Your task to perform on an android device: View the shopping cart on bestbuy. Add "duracell triple a" to the cart on bestbuy Image 0: 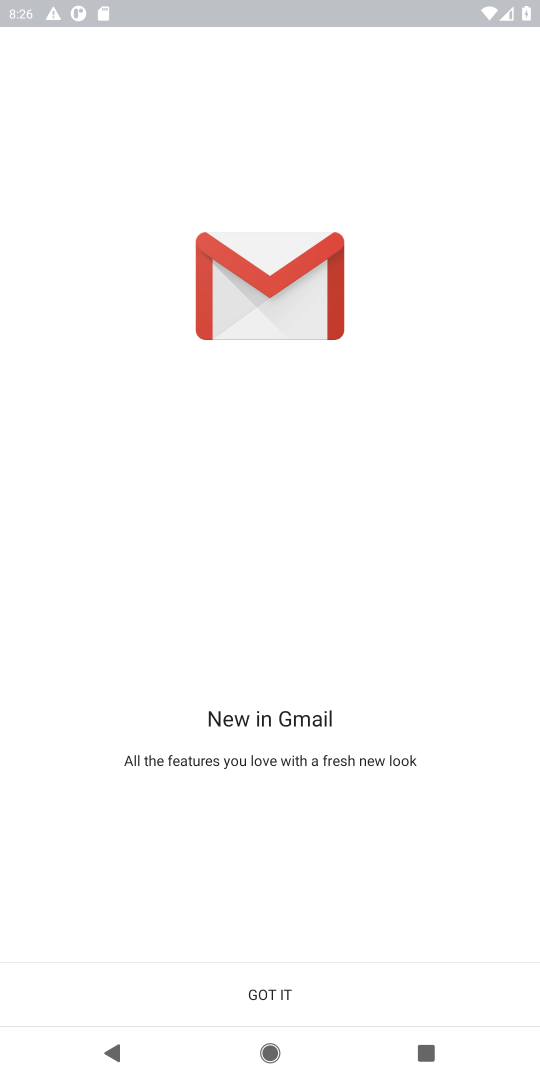
Step 0: press home button
Your task to perform on an android device: View the shopping cart on bestbuy. Add "duracell triple a" to the cart on bestbuy Image 1: 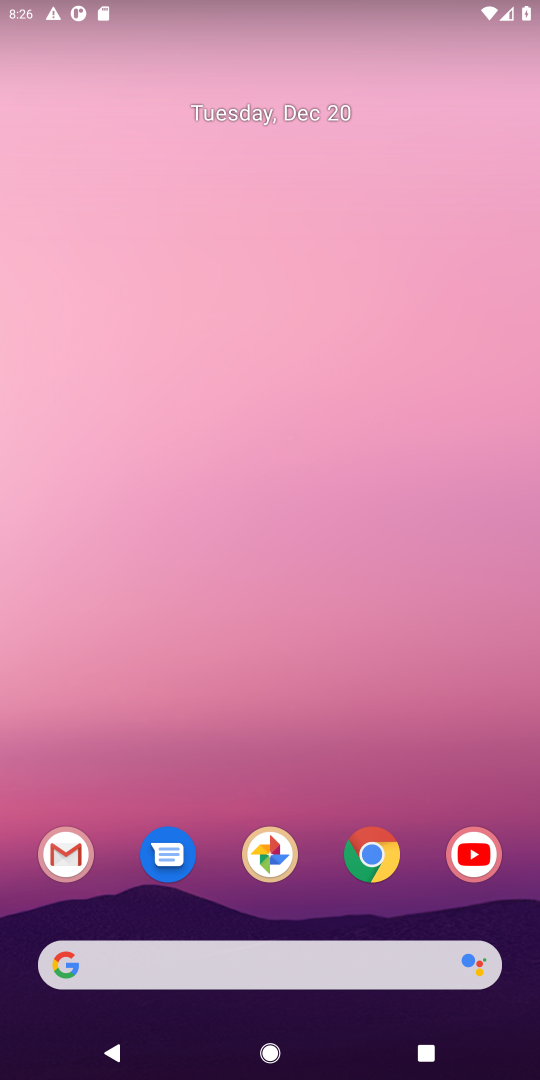
Step 1: click (377, 860)
Your task to perform on an android device: View the shopping cart on bestbuy. Add "duracell triple a" to the cart on bestbuy Image 2: 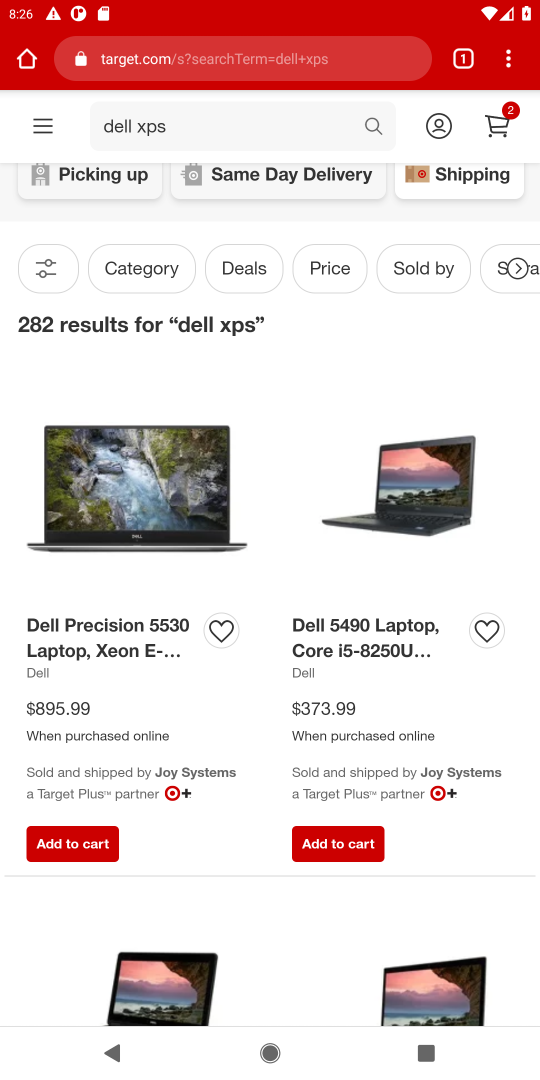
Step 2: click (179, 57)
Your task to perform on an android device: View the shopping cart on bestbuy. Add "duracell triple a" to the cart on bestbuy Image 3: 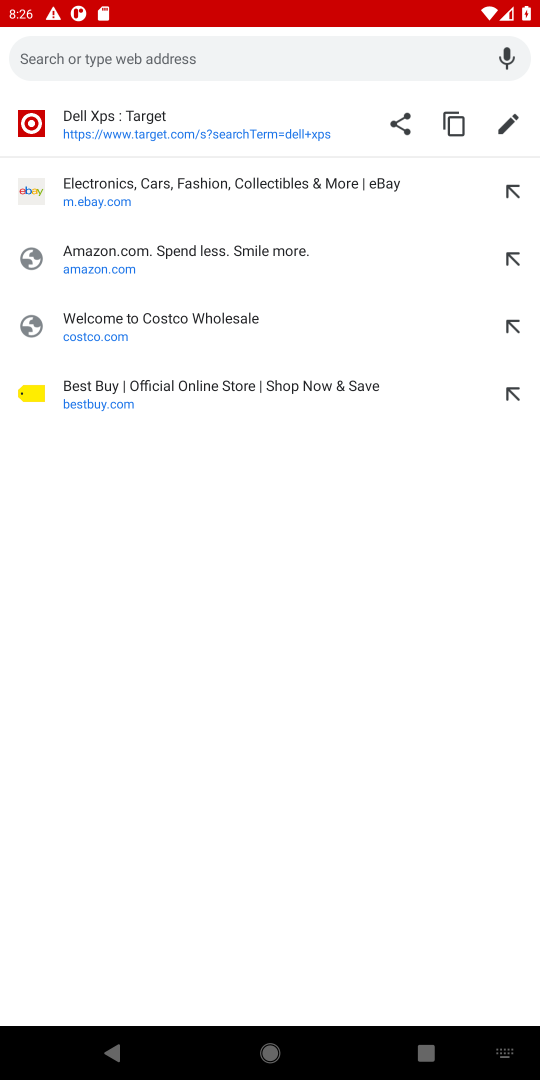
Step 3: click (80, 383)
Your task to perform on an android device: View the shopping cart on bestbuy. Add "duracell triple a" to the cart on bestbuy Image 4: 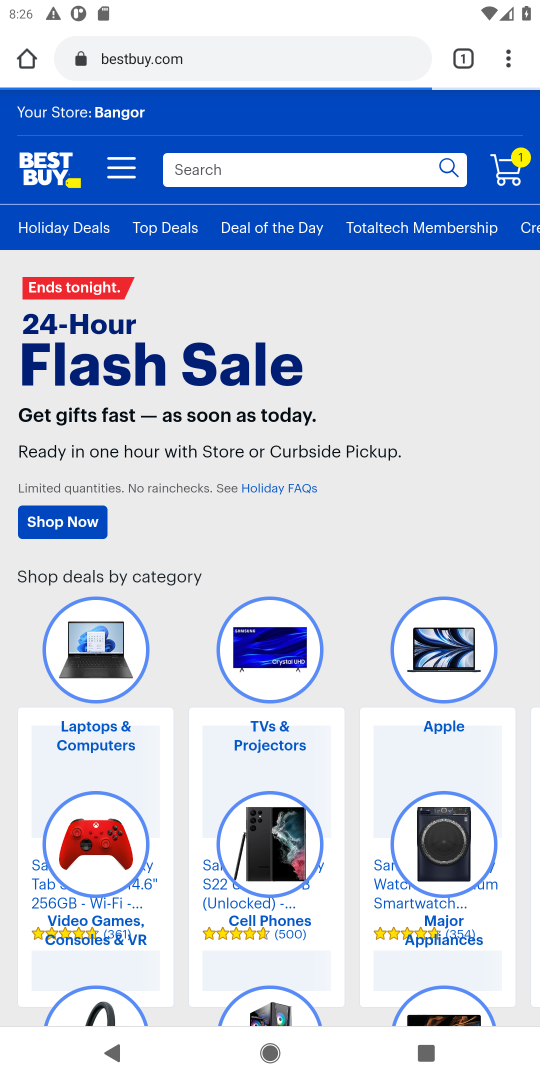
Step 4: click (496, 124)
Your task to perform on an android device: View the shopping cart on bestbuy. Add "duracell triple a" to the cart on bestbuy Image 5: 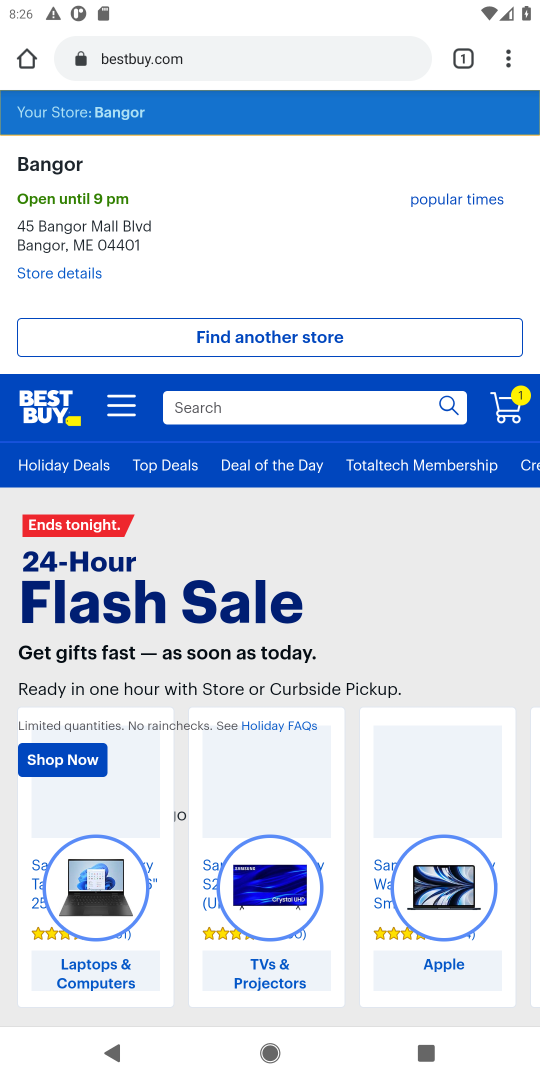
Step 5: click (497, 168)
Your task to perform on an android device: View the shopping cart on bestbuy. Add "duracell triple a" to the cart on bestbuy Image 6: 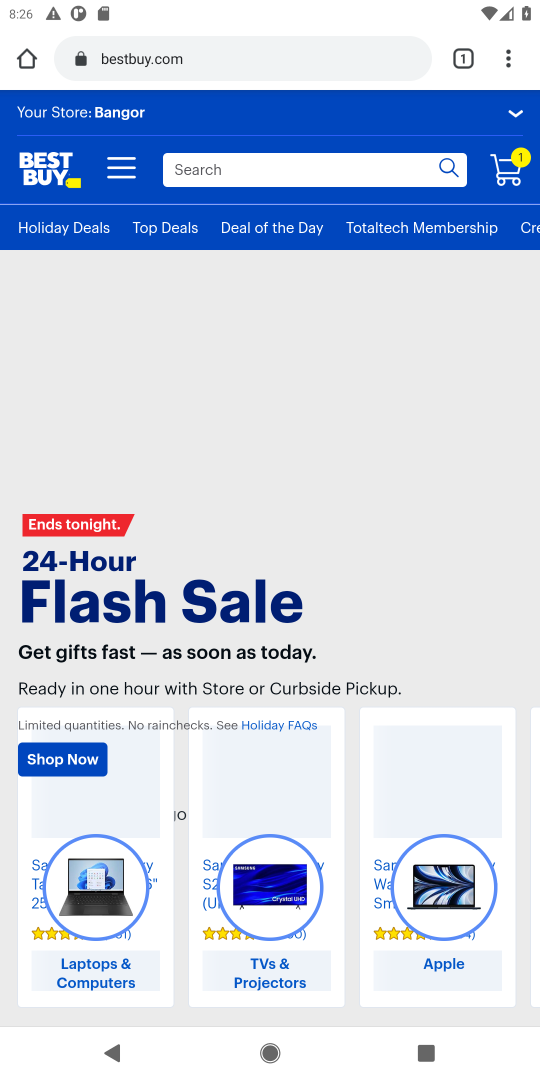
Step 6: click (506, 171)
Your task to perform on an android device: View the shopping cart on bestbuy. Add "duracell triple a" to the cart on bestbuy Image 7: 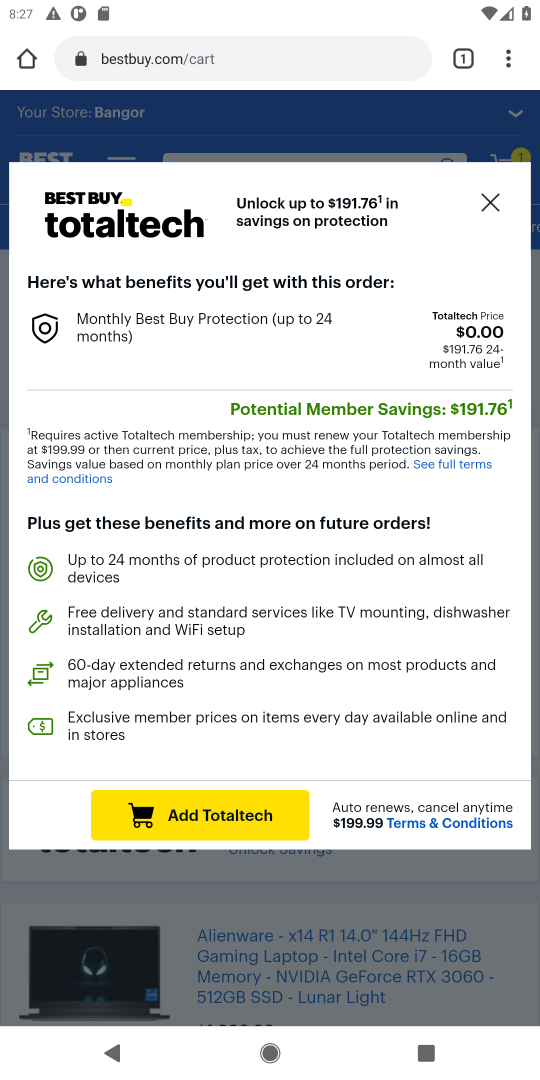
Step 7: click (496, 202)
Your task to perform on an android device: View the shopping cart on bestbuy. Add "duracell triple a" to the cart on bestbuy Image 8: 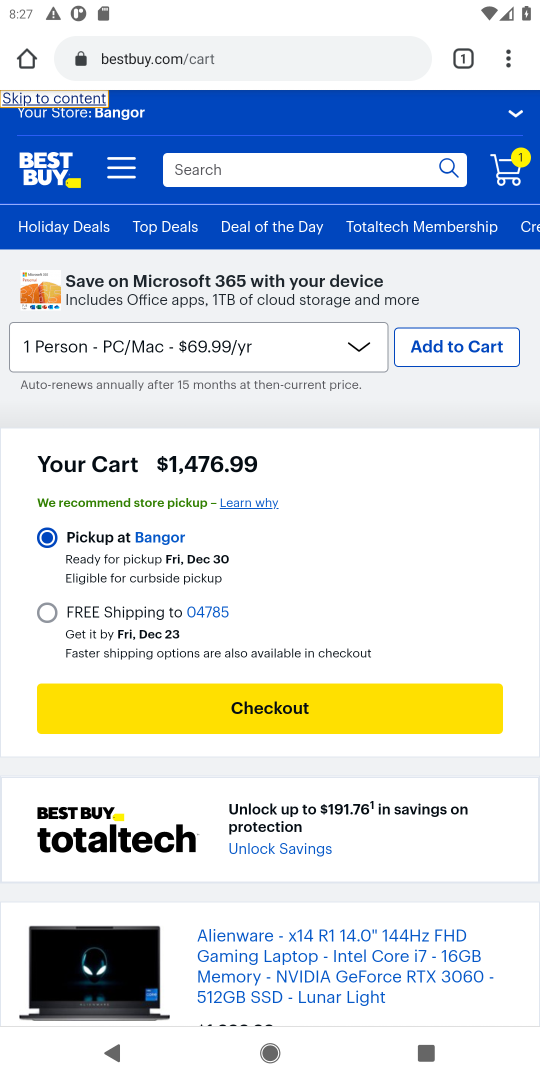
Step 8: click (181, 178)
Your task to perform on an android device: View the shopping cart on bestbuy. Add "duracell triple a" to the cart on bestbuy Image 9: 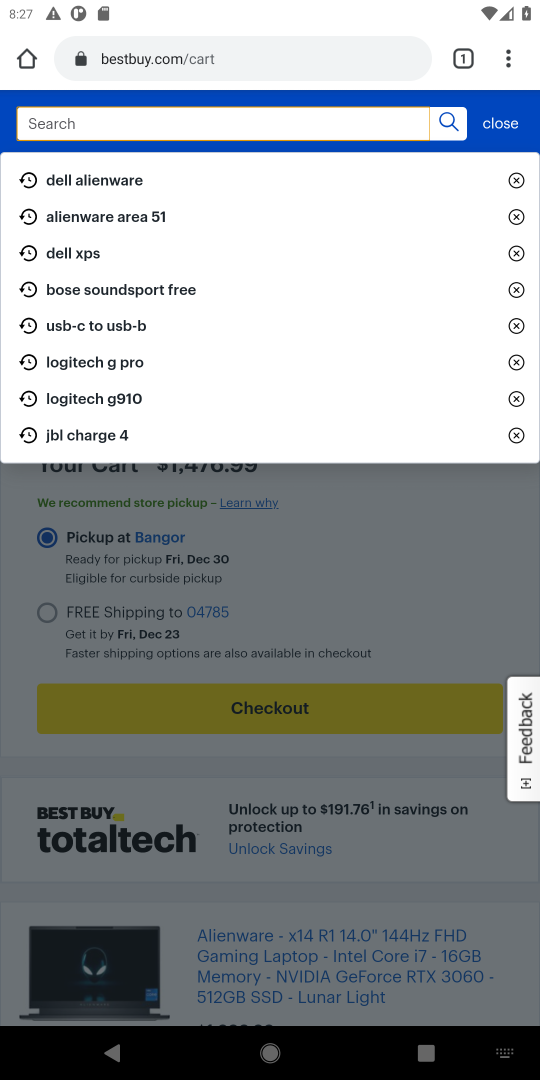
Step 9: type "duracell triple a"
Your task to perform on an android device: View the shopping cart on bestbuy. Add "duracell triple a" to the cart on bestbuy Image 10: 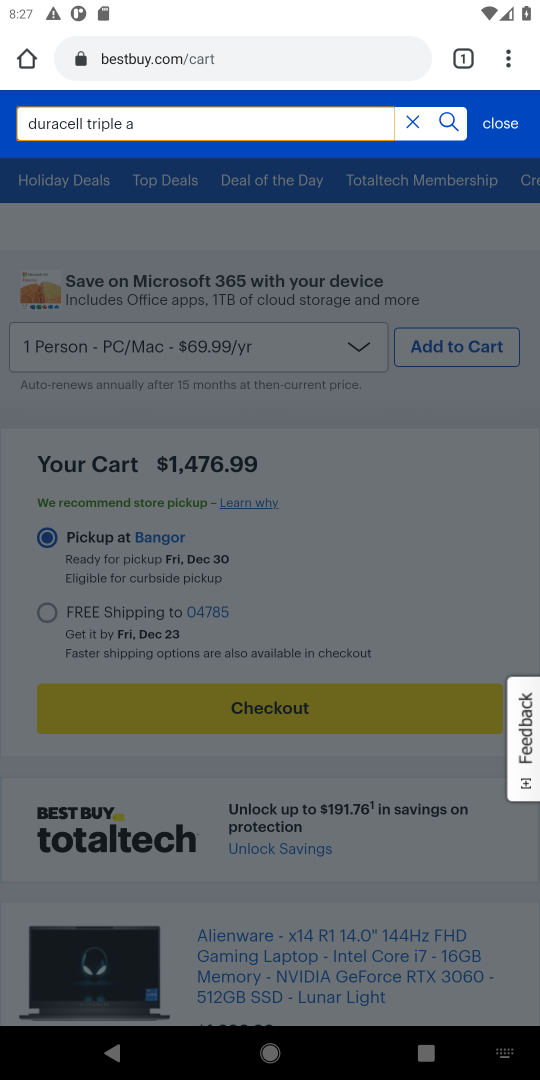
Step 10: click (442, 121)
Your task to perform on an android device: View the shopping cart on bestbuy. Add "duracell triple a" to the cart on bestbuy Image 11: 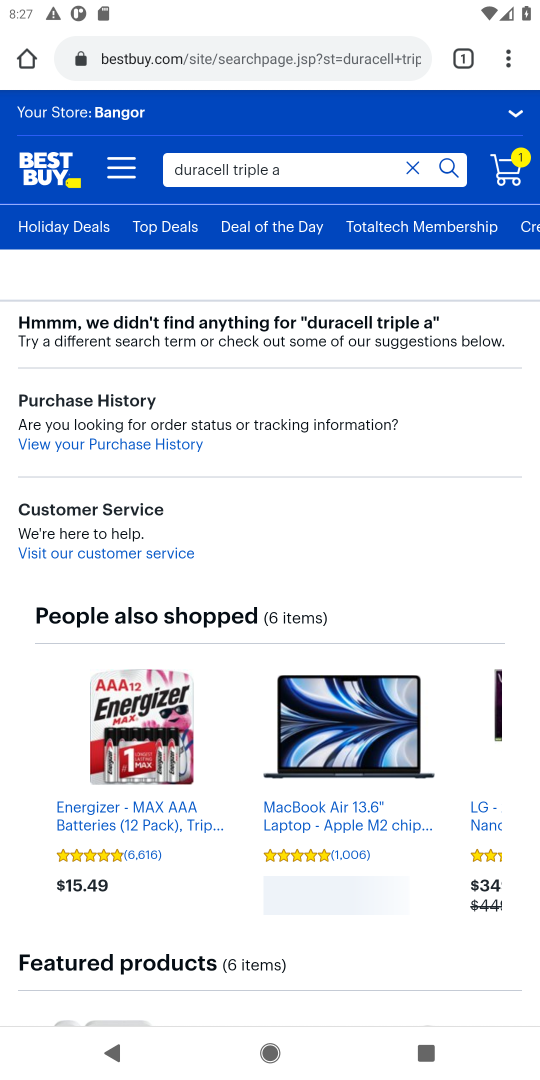
Step 11: task complete